Your task to perform on an android device: move a message to another label in the gmail app Image 0: 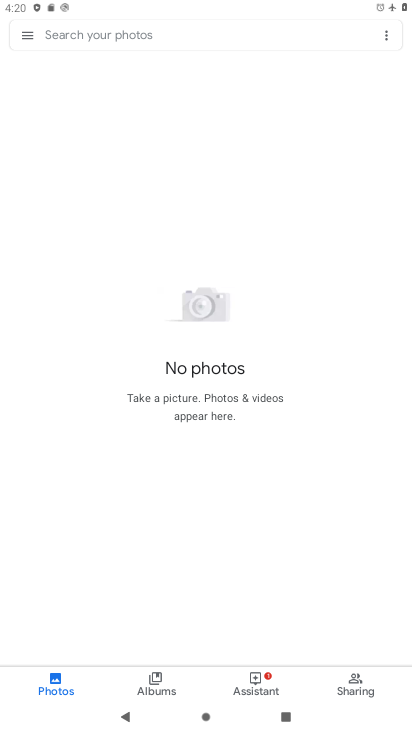
Step 0: press home button
Your task to perform on an android device: move a message to another label in the gmail app Image 1: 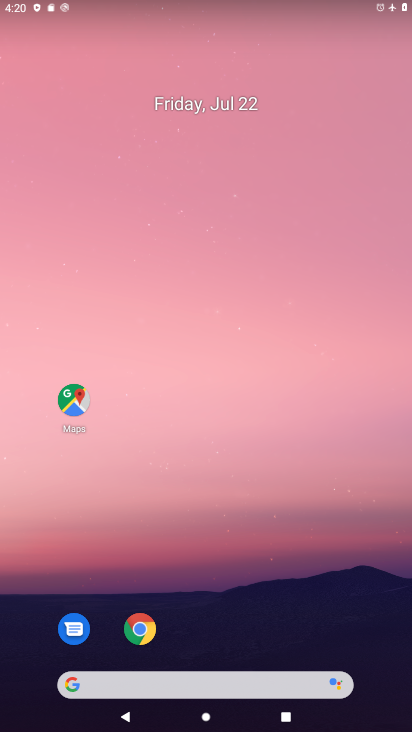
Step 1: drag from (330, 562) to (168, 11)
Your task to perform on an android device: move a message to another label in the gmail app Image 2: 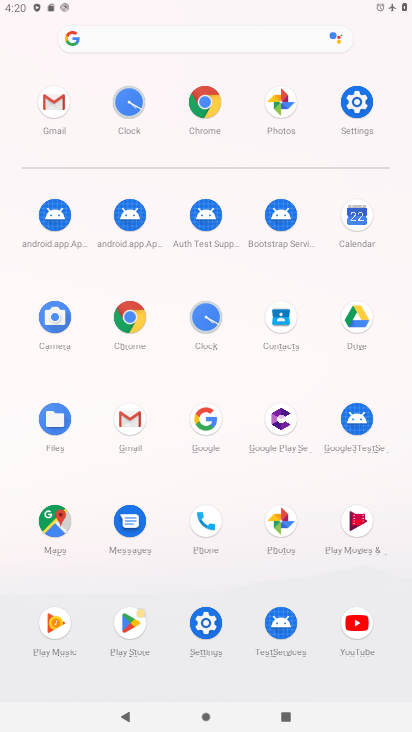
Step 2: click (51, 98)
Your task to perform on an android device: move a message to another label in the gmail app Image 3: 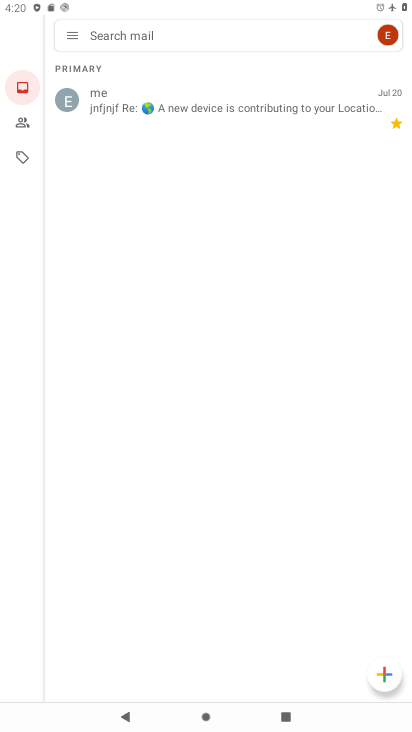
Step 3: click (70, 24)
Your task to perform on an android device: move a message to another label in the gmail app Image 4: 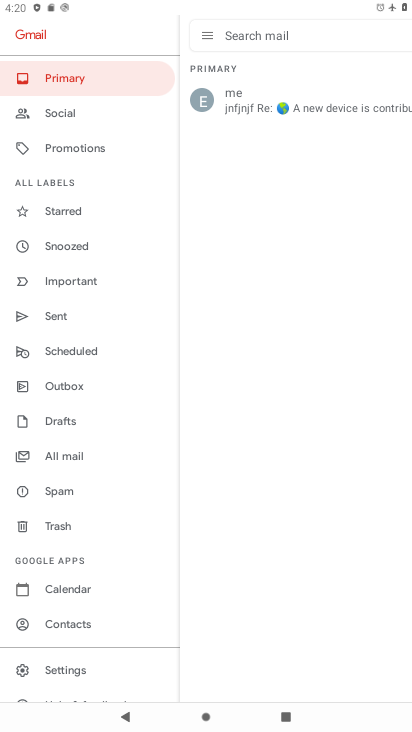
Step 4: click (326, 111)
Your task to perform on an android device: move a message to another label in the gmail app Image 5: 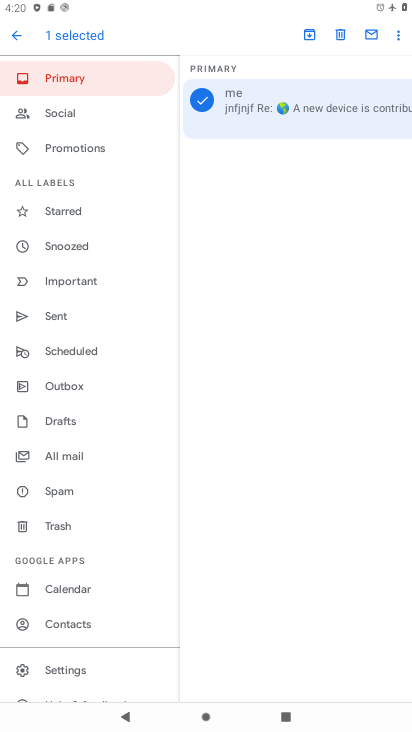
Step 5: click (398, 37)
Your task to perform on an android device: move a message to another label in the gmail app Image 6: 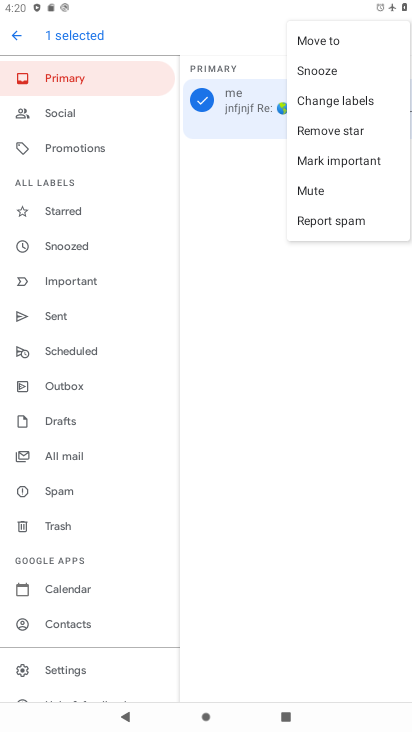
Step 6: click (331, 106)
Your task to perform on an android device: move a message to another label in the gmail app Image 7: 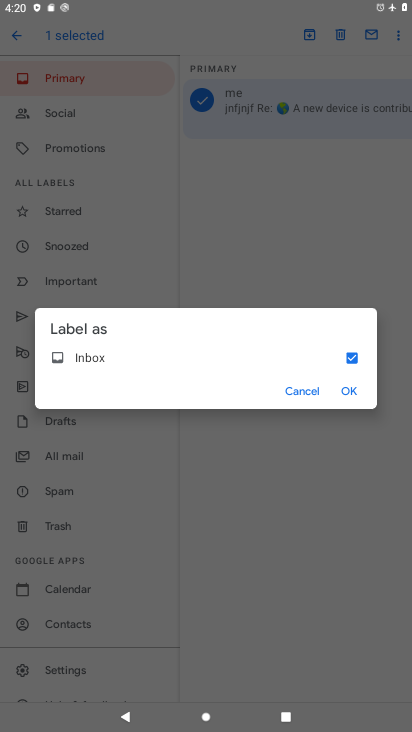
Step 7: click (356, 361)
Your task to perform on an android device: move a message to another label in the gmail app Image 8: 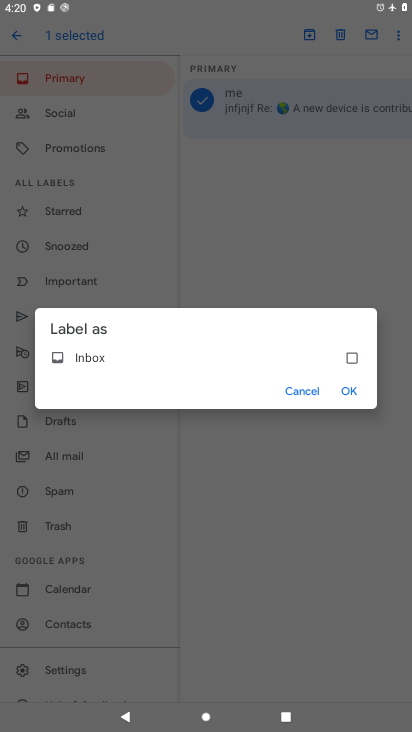
Step 8: click (348, 386)
Your task to perform on an android device: move a message to another label in the gmail app Image 9: 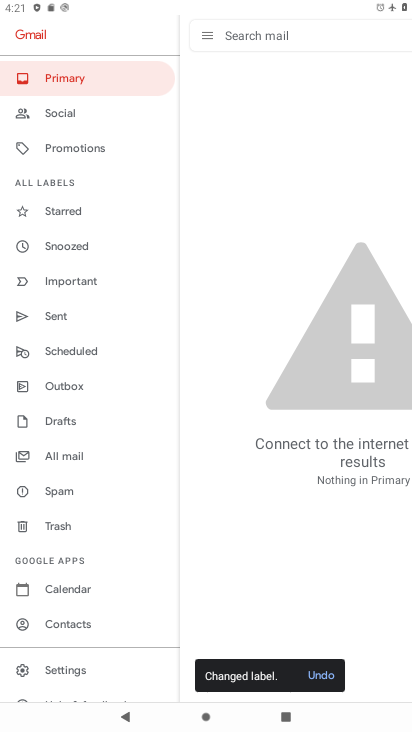
Step 9: task complete